Your task to perform on an android device: toggle javascript in the chrome app Image 0: 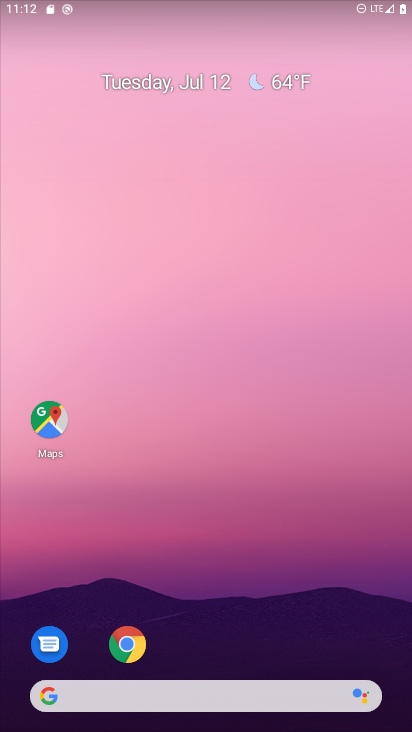
Step 0: click (140, 648)
Your task to perform on an android device: toggle javascript in the chrome app Image 1: 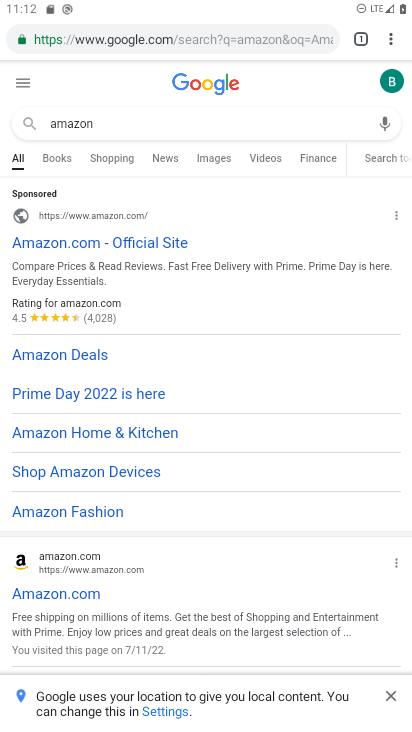
Step 1: click (391, 45)
Your task to perform on an android device: toggle javascript in the chrome app Image 2: 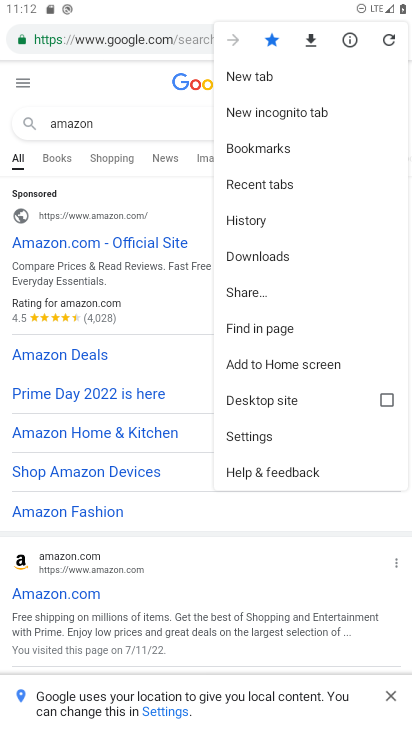
Step 2: click (248, 440)
Your task to perform on an android device: toggle javascript in the chrome app Image 3: 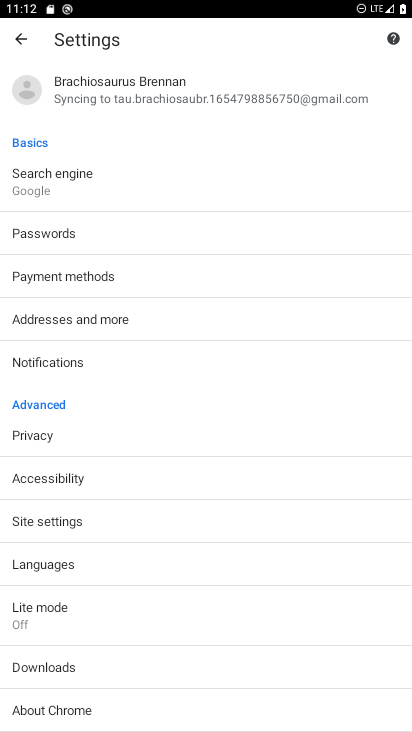
Step 3: click (128, 519)
Your task to perform on an android device: toggle javascript in the chrome app Image 4: 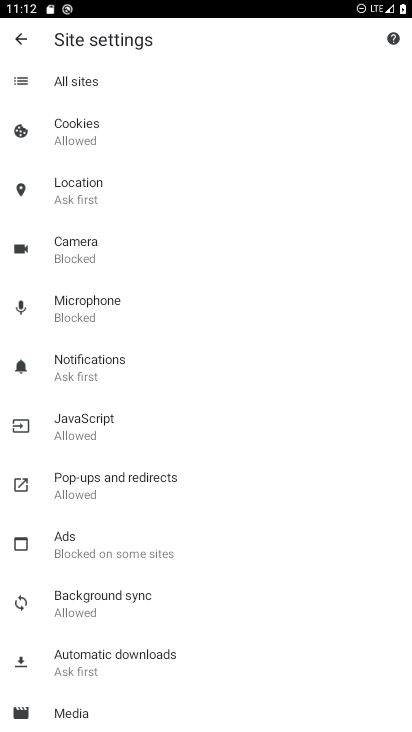
Step 4: click (143, 422)
Your task to perform on an android device: toggle javascript in the chrome app Image 5: 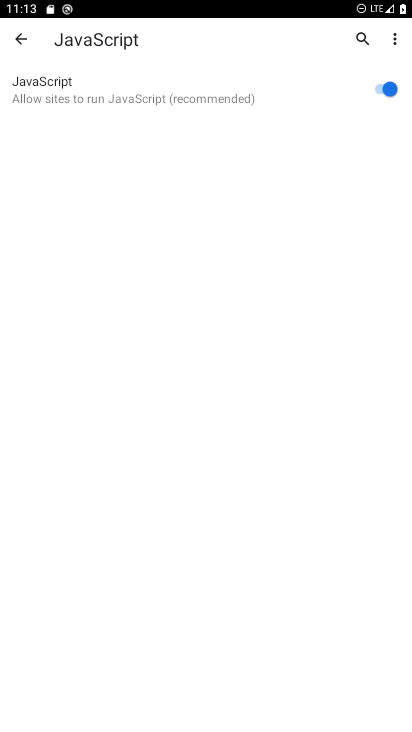
Step 5: click (405, 74)
Your task to perform on an android device: toggle javascript in the chrome app Image 6: 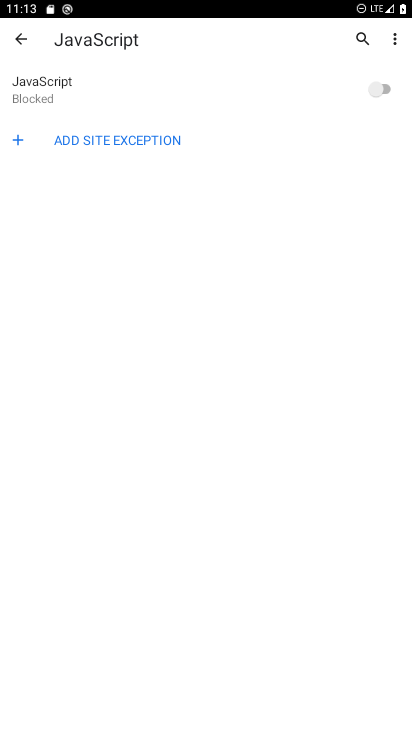
Step 6: task complete